Your task to perform on an android device: Open maps Image 0: 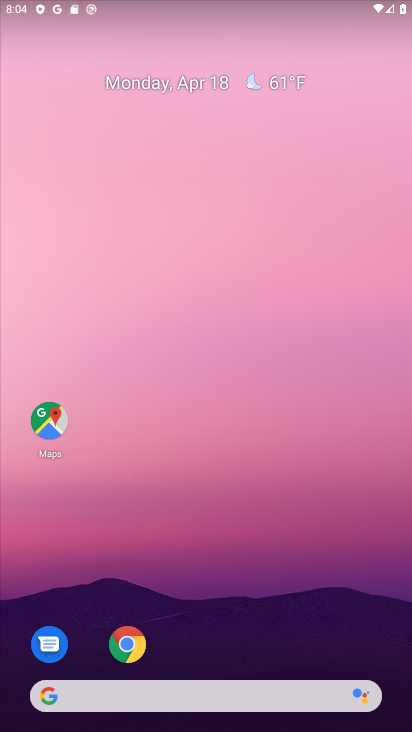
Step 0: click (52, 423)
Your task to perform on an android device: Open maps Image 1: 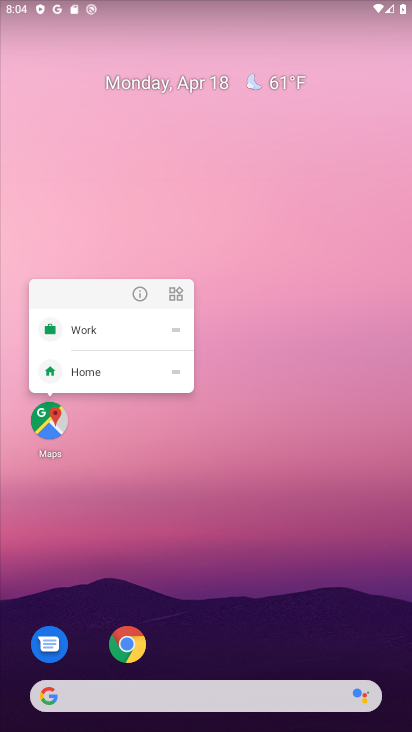
Step 1: click (52, 423)
Your task to perform on an android device: Open maps Image 2: 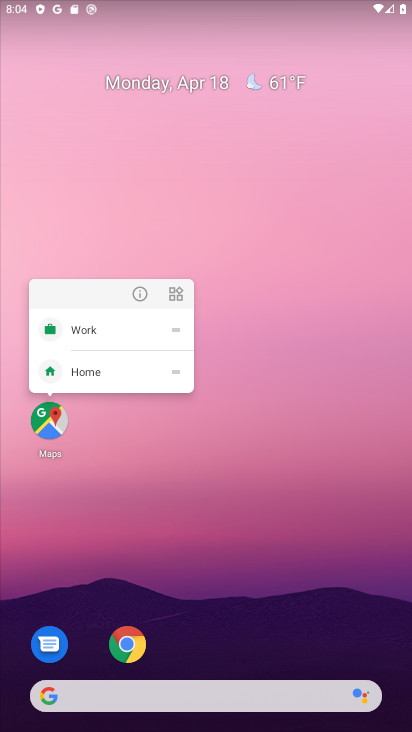
Step 2: click (52, 423)
Your task to perform on an android device: Open maps Image 3: 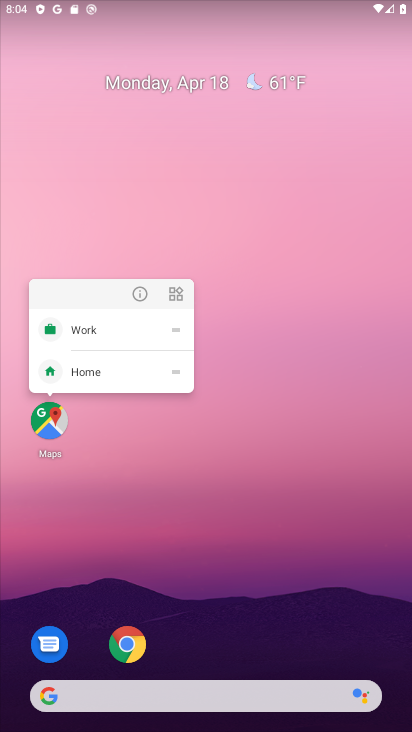
Step 3: click (52, 423)
Your task to perform on an android device: Open maps Image 4: 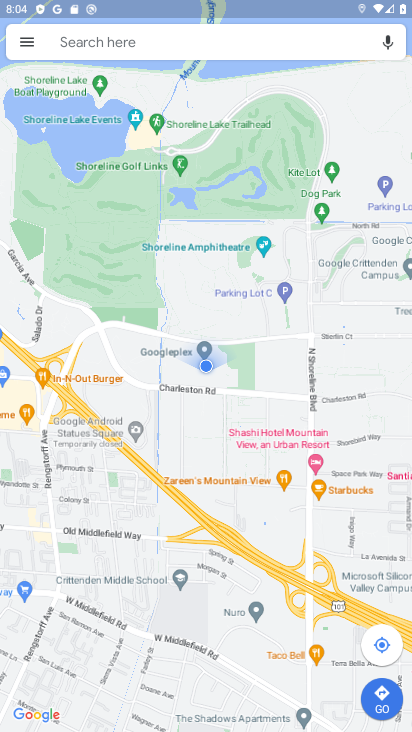
Step 4: task complete